Your task to perform on an android device: Go to location settings Image 0: 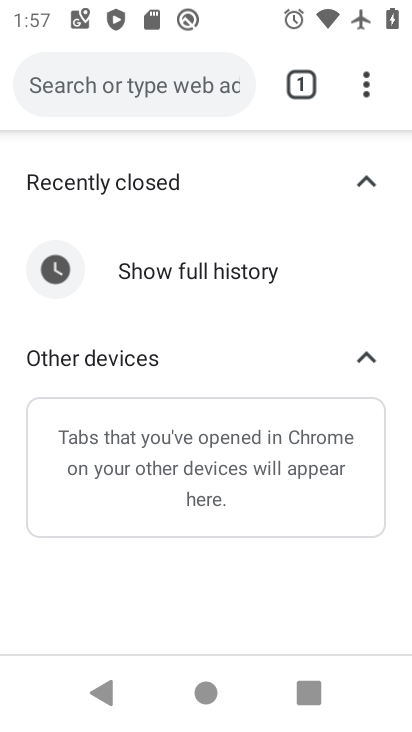
Step 0: press home button
Your task to perform on an android device: Go to location settings Image 1: 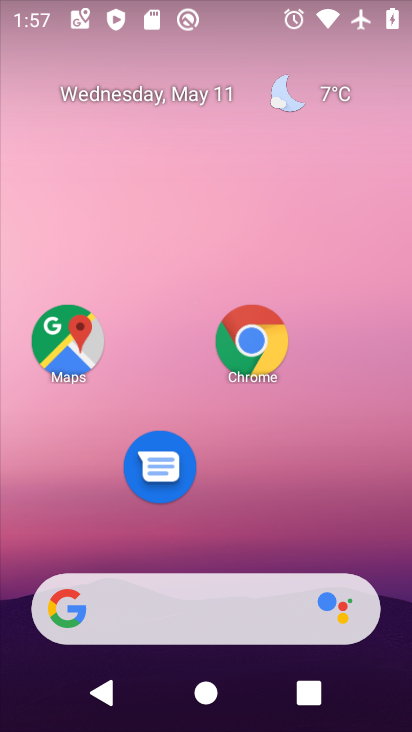
Step 1: drag from (176, 601) to (280, 103)
Your task to perform on an android device: Go to location settings Image 2: 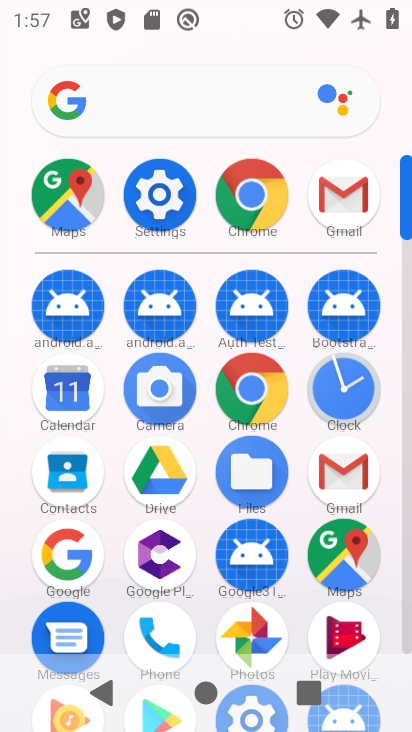
Step 2: click (156, 202)
Your task to perform on an android device: Go to location settings Image 3: 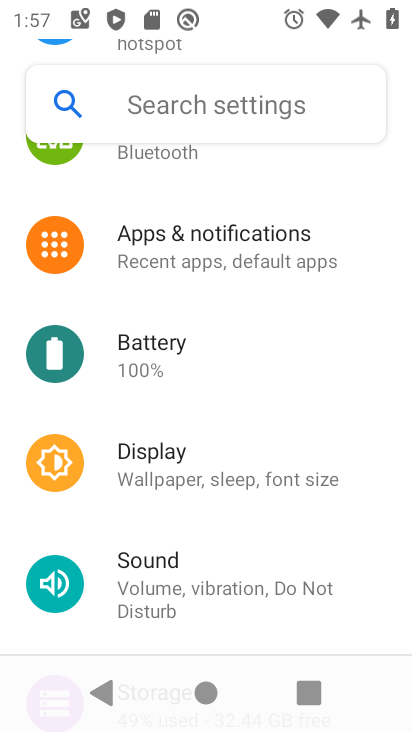
Step 3: drag from (200, 518) to (303, 149)
Your task to perform on an android device: Go to location settings Image 4: 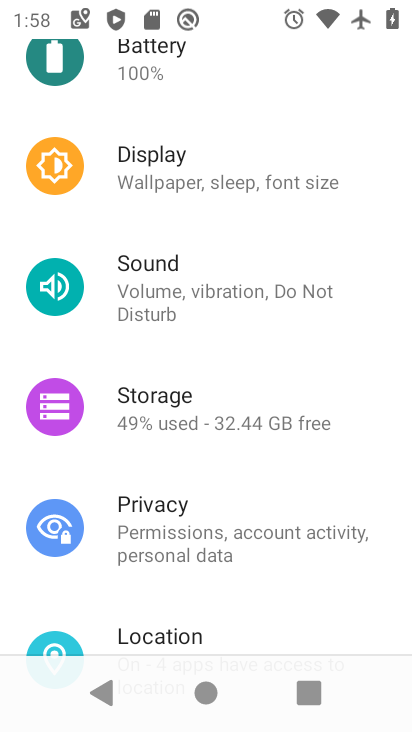
Step 4: drag from (193, 591) to (276, 232)
Your task to perform on an android device: Go to location settings Image 5: 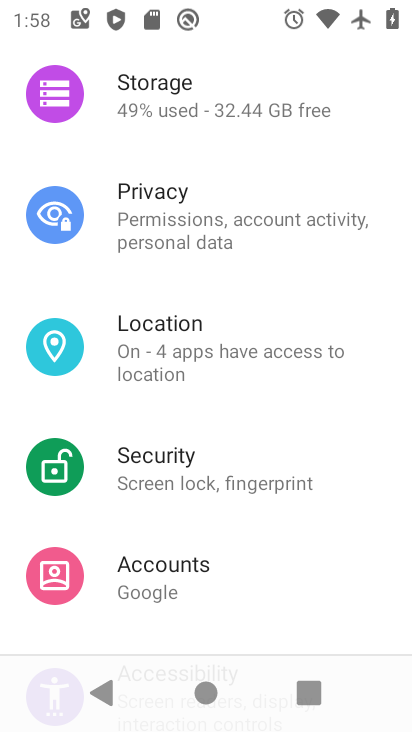
Step 5: click (165, 332)
Your task to perform on an android device: Go to location settings Image 6: 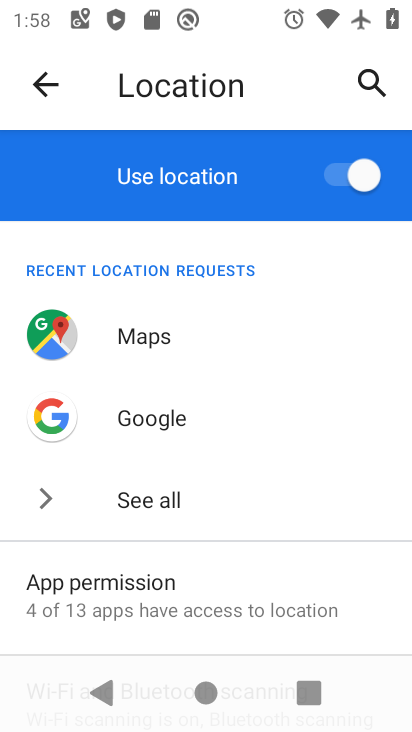
Step 6: task complete